Your task to perform on an android device: Go to location settings Image 0: 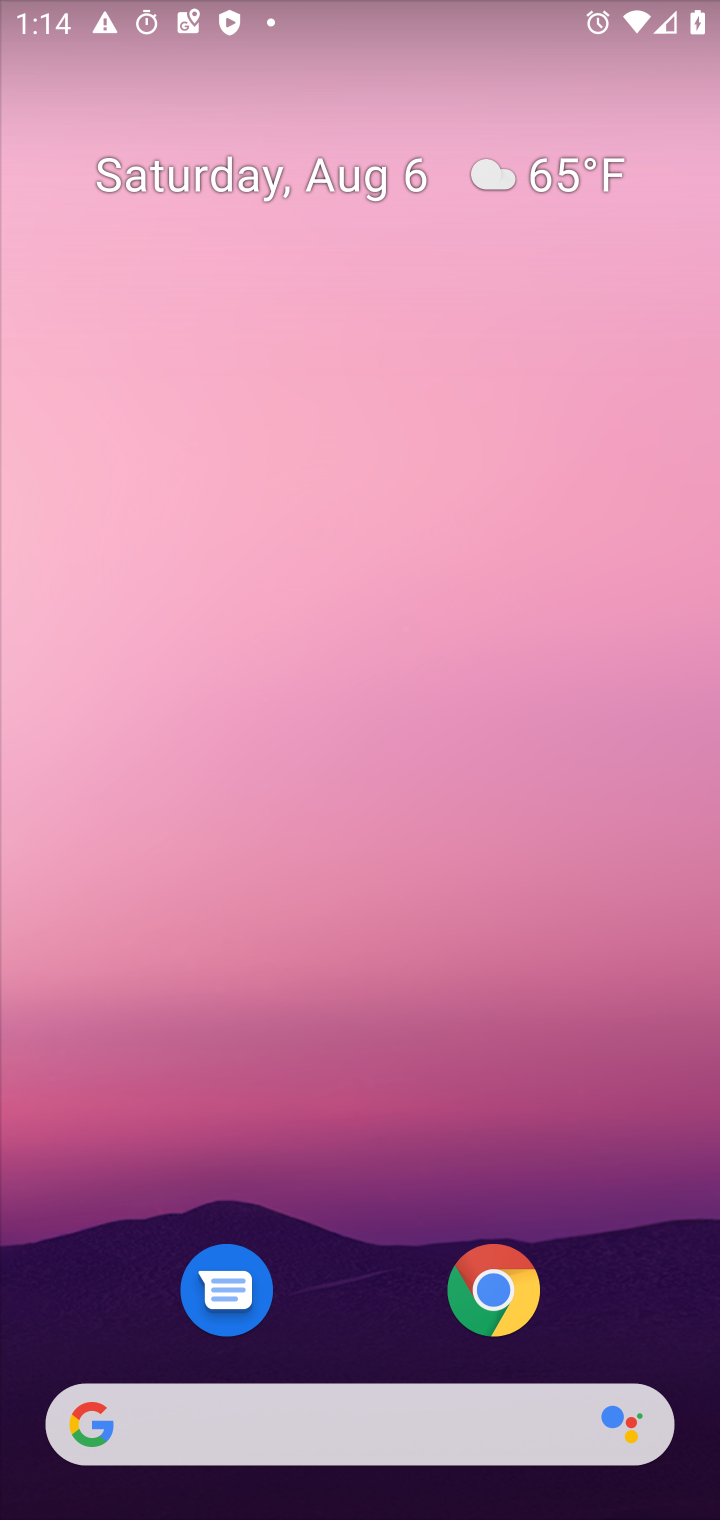
Step 0: click (438, 1440)
Your task to perform on an android device: Go to location settings Image 1: 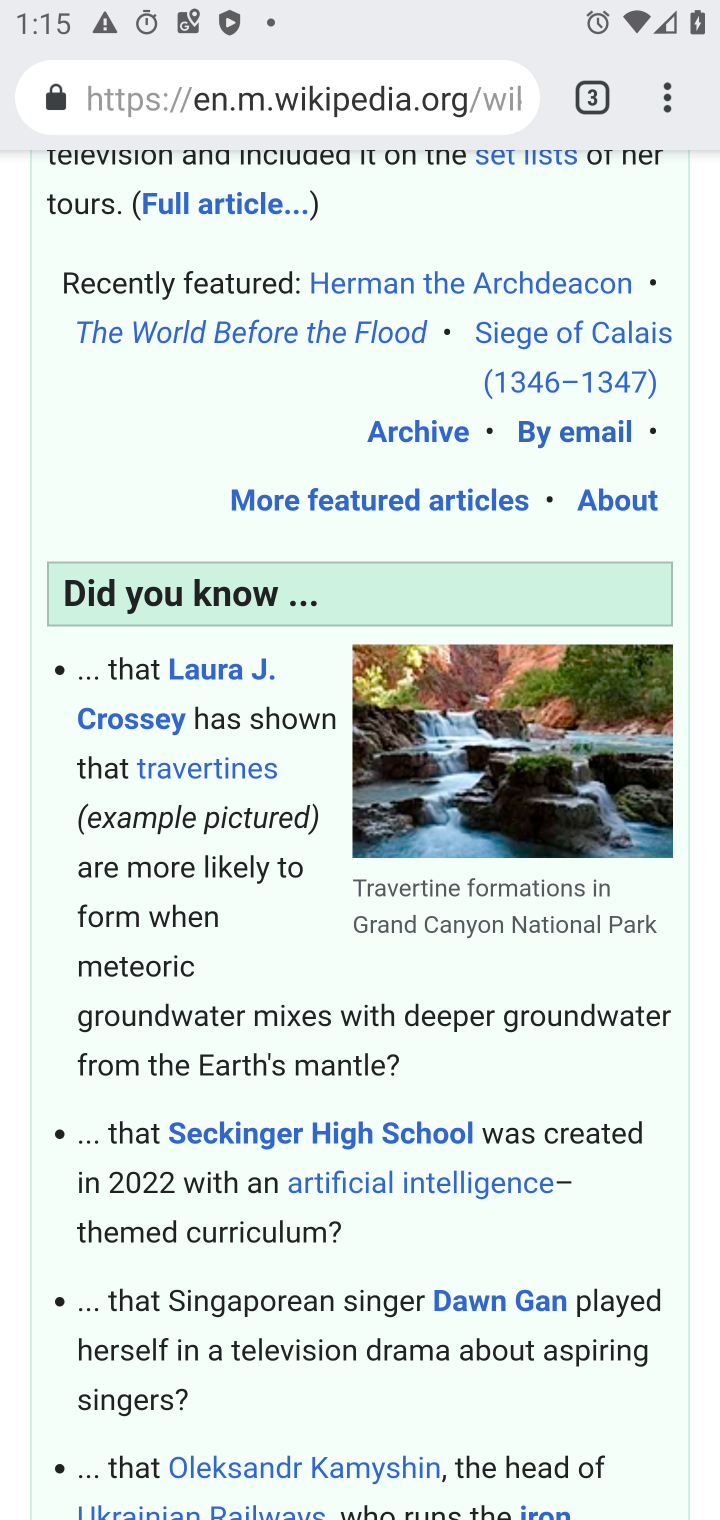
Step 1: press home button
Your task to perform on an android device: Go to location settings Image 2: 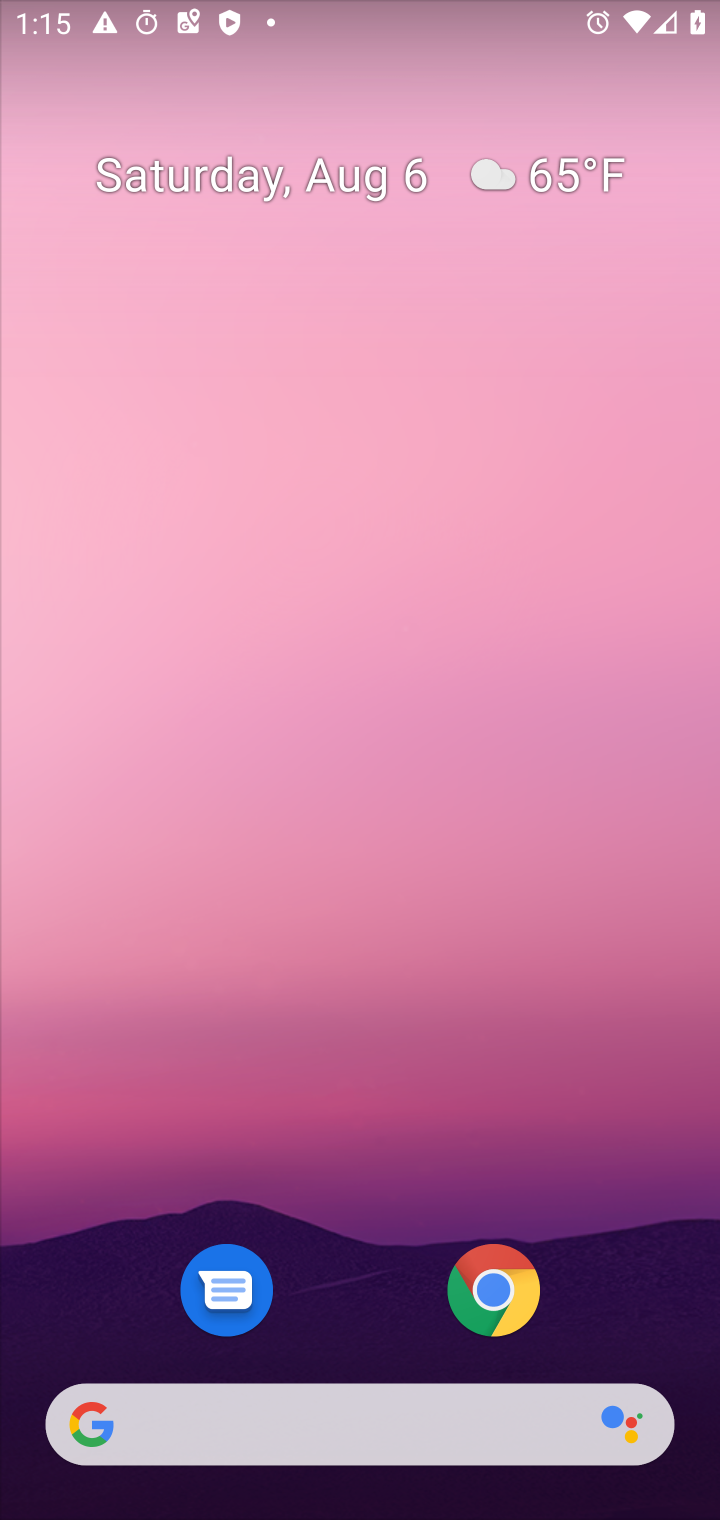
Step 2: drag from (373, 1351) to (459, 115)
Your task to perform on an android device: Go to location settings Image 3: 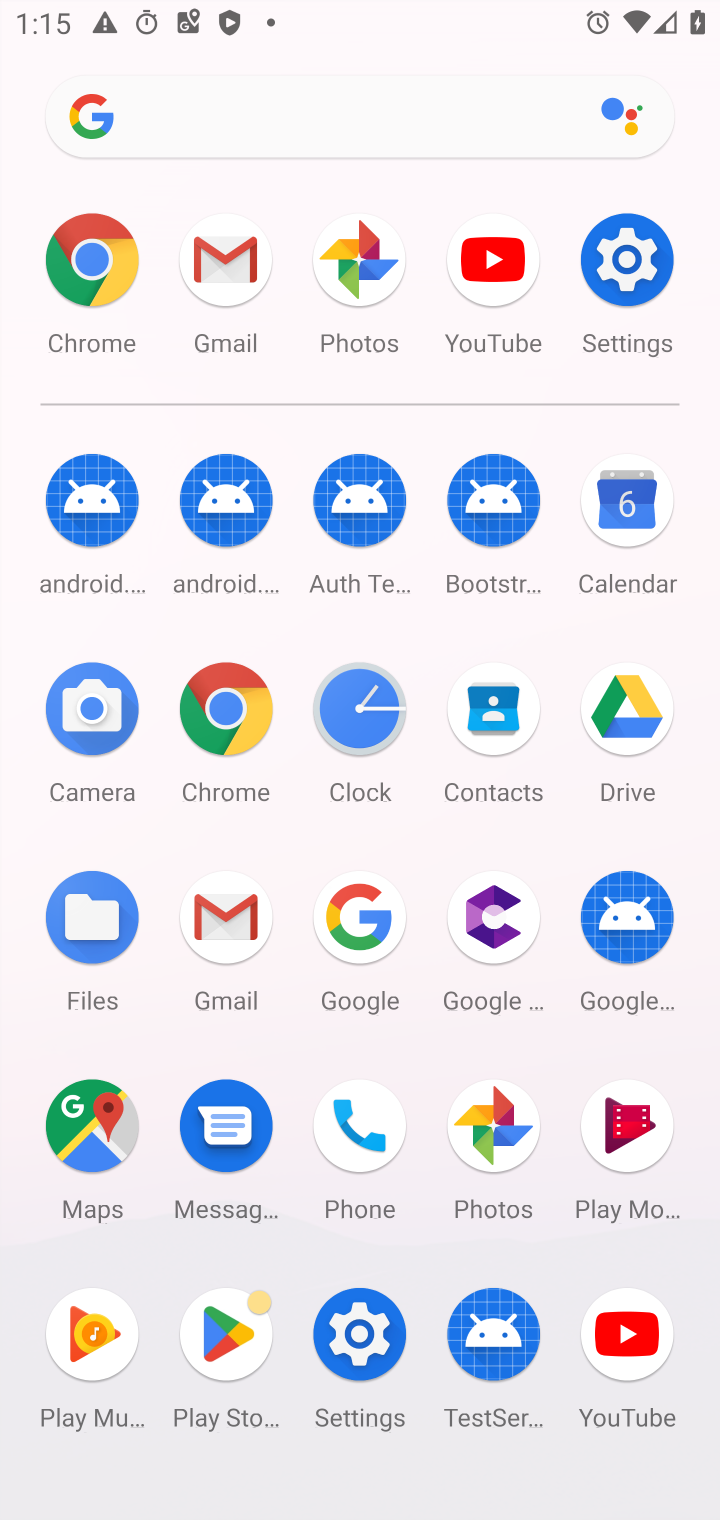
Step 3: click (611, 241)
Your task to perform on an android device: Go to location settings Image 4: 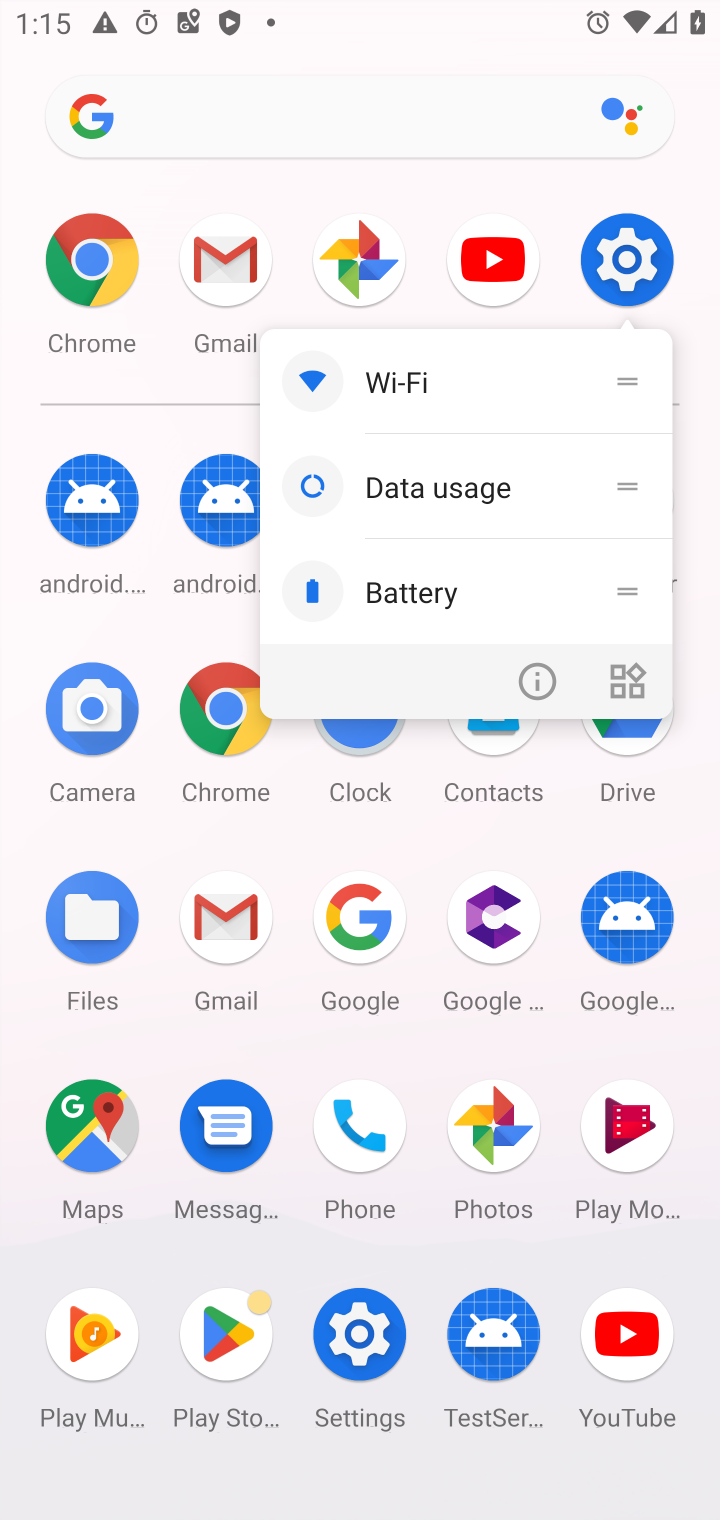
Step 4: click (628, 264)
Your task to perform on an android device: Go to location settings Image 5: 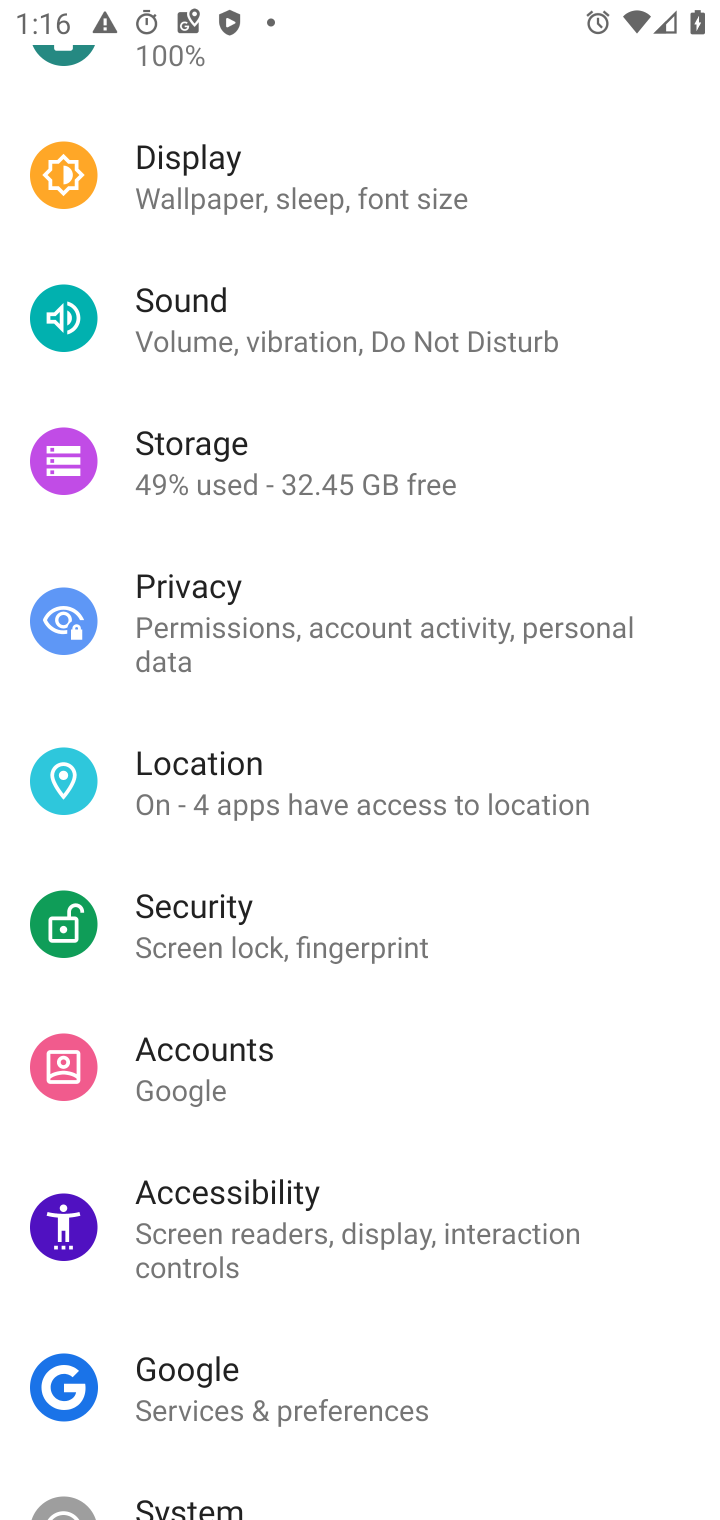
Step 5: click (264, 758)
Your task to perform on an android device: Go to location settings Image 6: 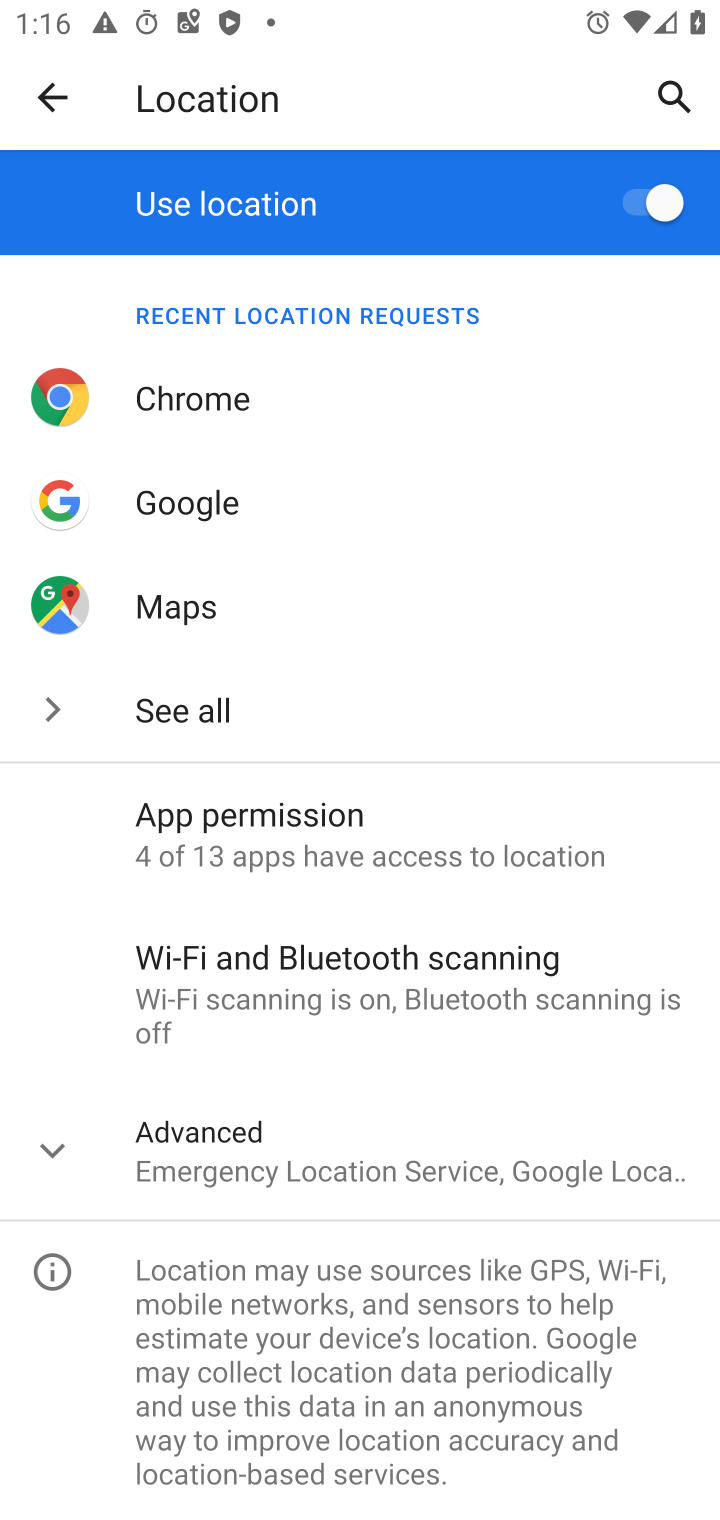
Step 6: click (63, 1137)
Your task to perform on an android device: Go to location settings Image 7: 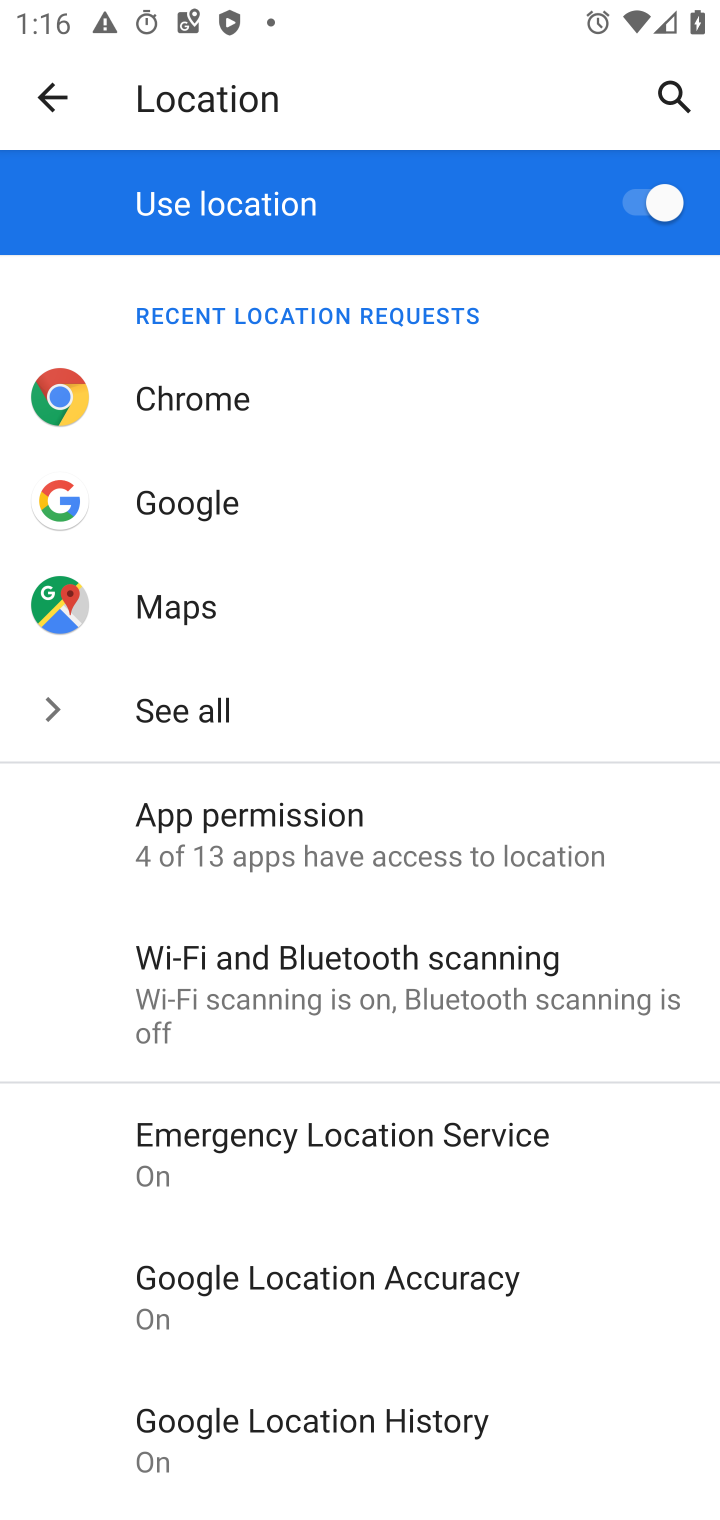
Step 7: task complete